Your task to perform on an android device: change the clock display to show seconds Image 0: 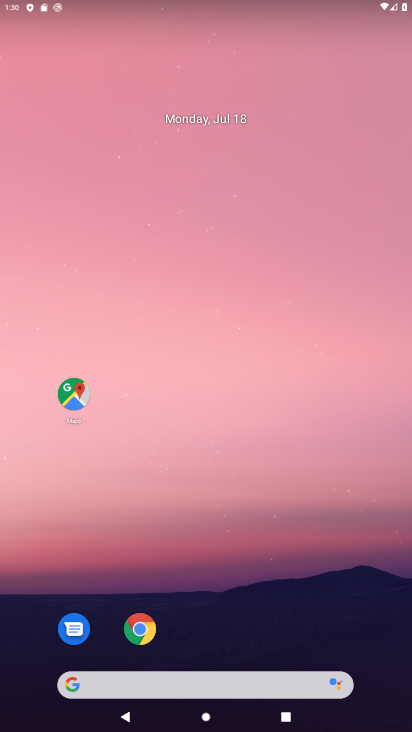
Step 0: drag from (237, 540) to (218, 228)
Your task to perform on an android device: change the clock display to show seconds Image 1: 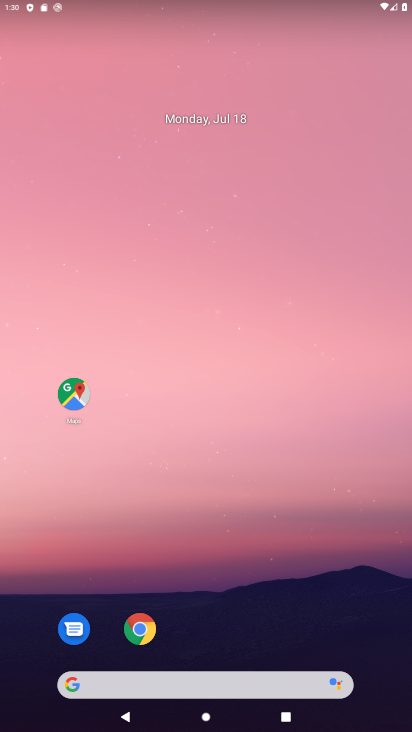
Step 1: drag from (176, 668) to (252, 22)
Your task to perform on an android device: change the clock display to show seconds Image 2: 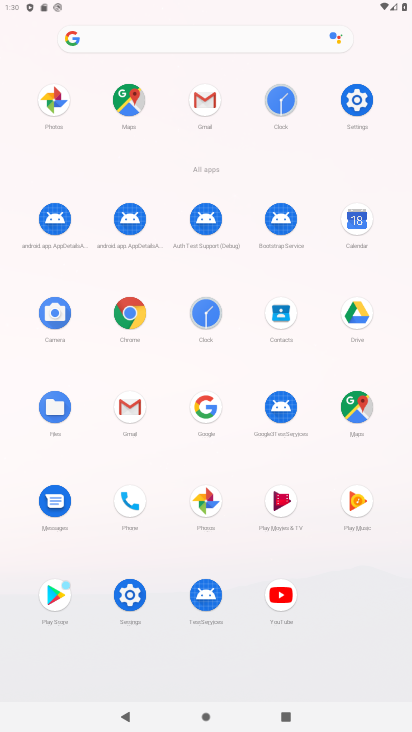
Step 2: click (276, 105)
Your task to perform on an android device: change the clock display to show seconds Image 3: 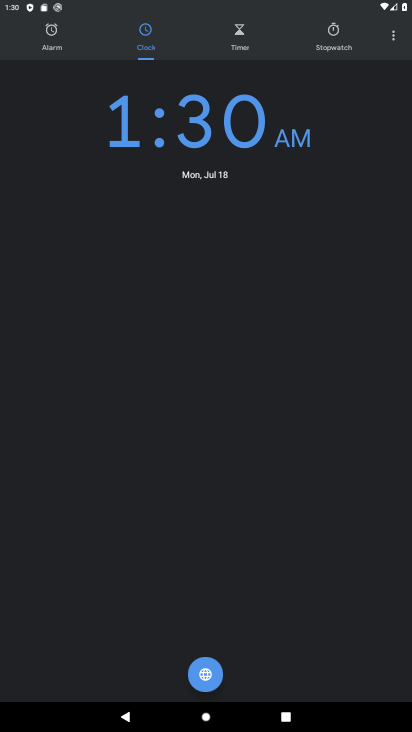
Step 3: click (394, 36)
Your task to perform on an android device: change the clock display to show seconds Image 4: 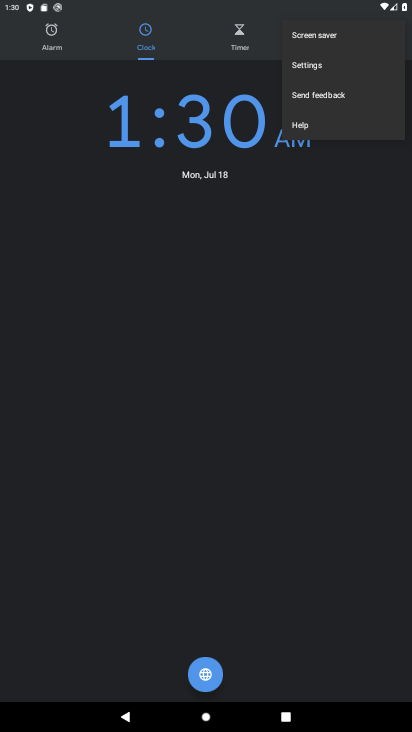
Step 4: click (304, 64)
Your task to perform on an android device: change the clock display to show seconds Image 5: 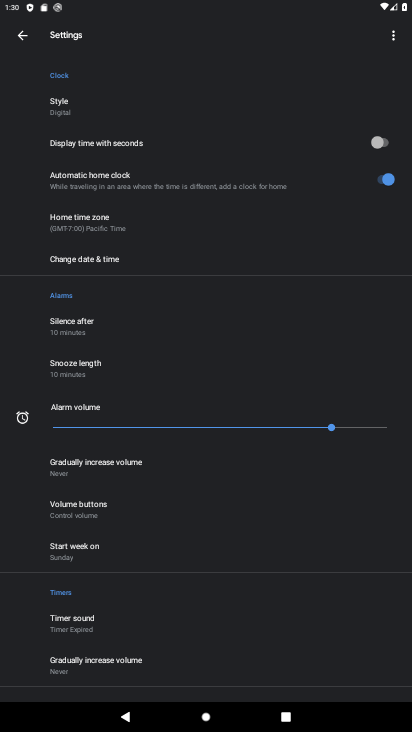
Step 5: click (378, 138)
Your task to perform on an android device: change the clock display to show seconds Image 6: 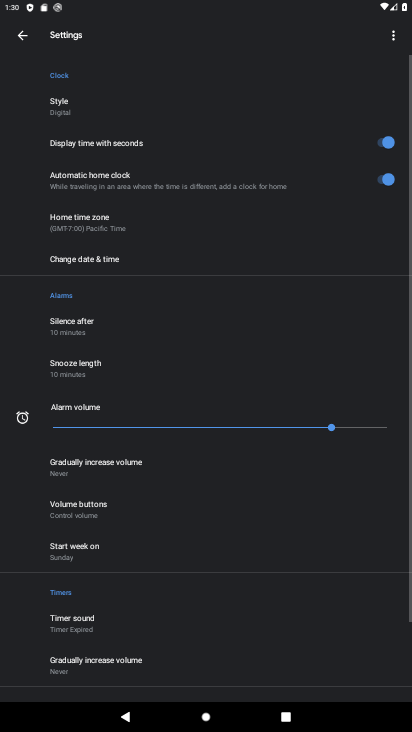
Step 6: task complete